Your task to perform on an android device: Open settings on Google Maps Image 0: 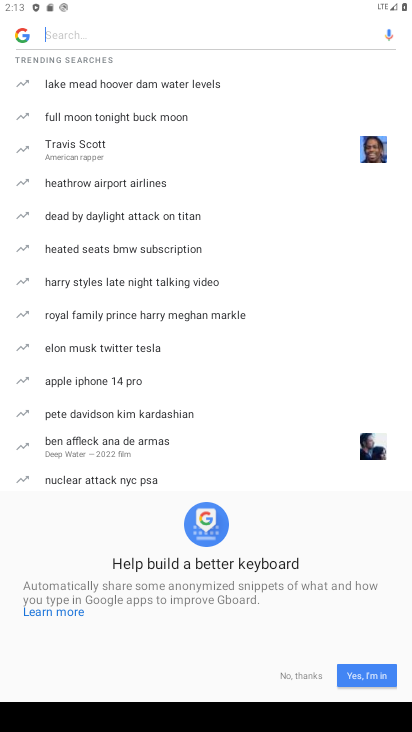
Step 0: press home button
Your task to perform on an android device: Open settings on Google Maps Image 1: 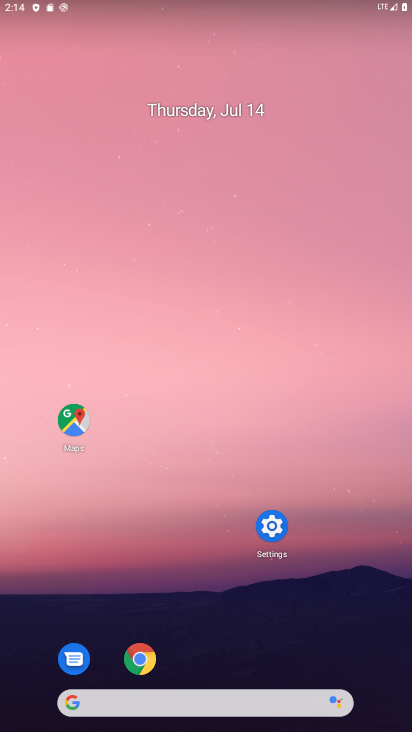
Step 1: click (55, 412)
Your task to perform on an android device: Open settings on Google Maps Image 2: 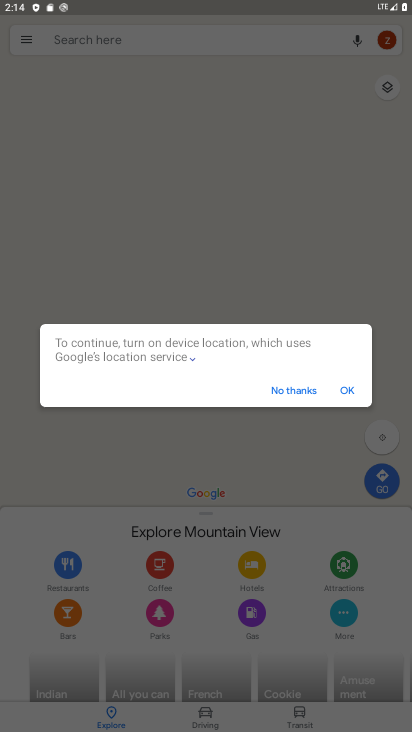
Step 2: click (354, 390)
Your task to perform on an android device: Open settings on Google Maps Image 3: 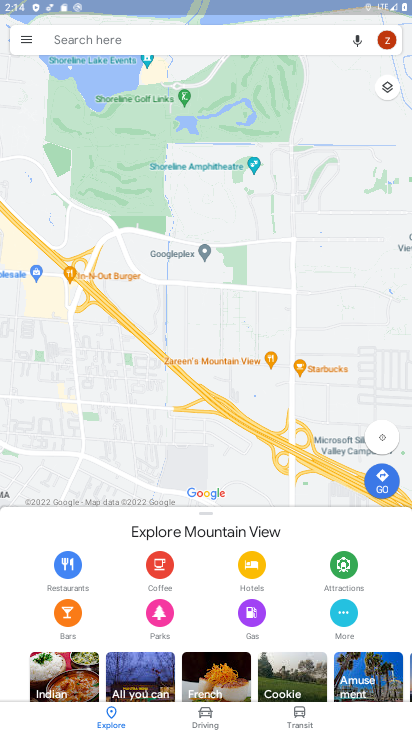
Step 3: click (22, 40)
Your task to perform on an android device: Open settings on Google Maps Image 4: 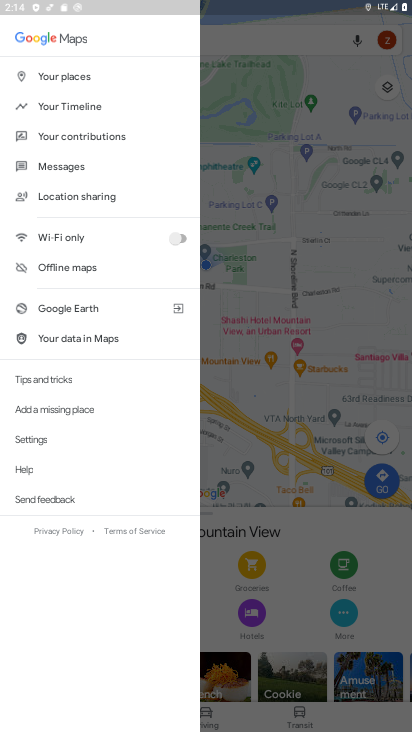
Step 4: click (48, 436)
Your task to perform on an android device: Open settings on Google Maps Image 5: 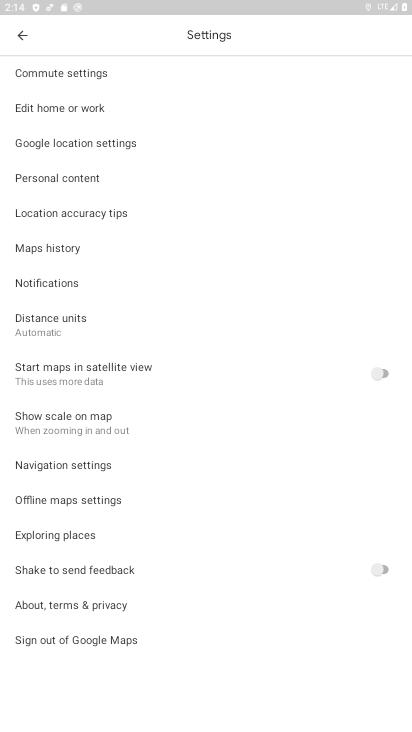
Step 5: task complete